Your task to perform on an android device: Open Google Chrome and open the bookmarks view Image 0: 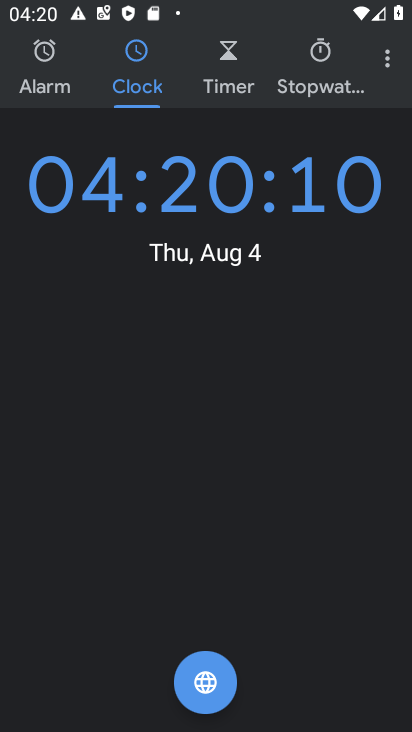
Step 0: press home button
Your task to perform on an android device: Open Google Chrome and open the bookmarks view Image 1: 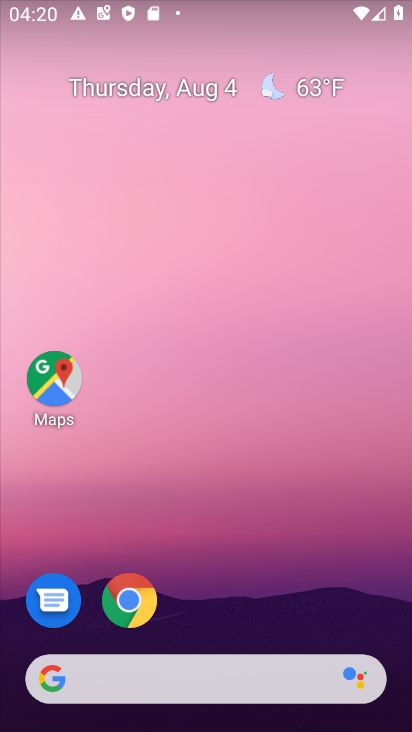
Step 1: drag from (333, 604) to (334, 199)
Your task to perform on an android device: Open Google Chrome and open the bookmarks view Image 2: 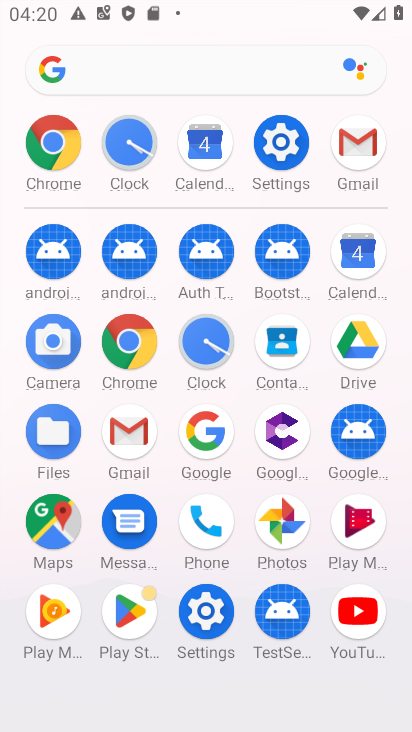
Step 2: click (140, 342)
Your task to perform on an android device: Open Google Chrome and open the bookmarks view Image 3: 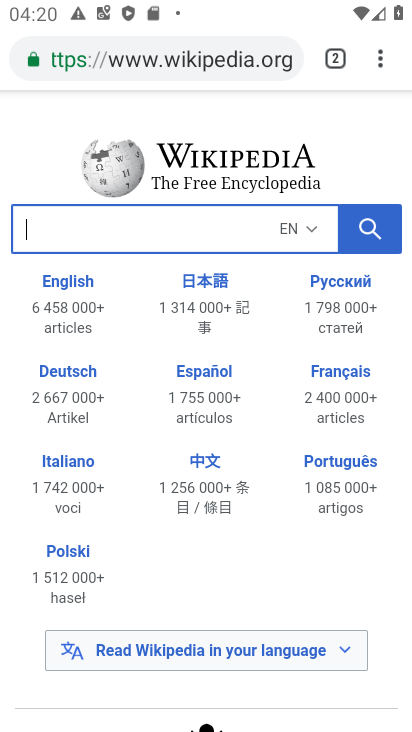
Step 3: drag from (385, 39) to (204, 237)
Your task to perform on an android device: Open Google Chrome and open the bookmarks view Image 4: 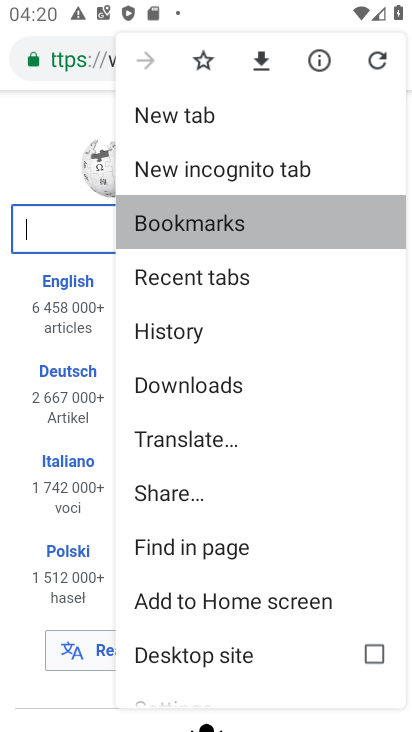
Step 4: click (204, 237)
Your task to perform on an android device: Open Google Chrome and open the bookmarks view Image 5: 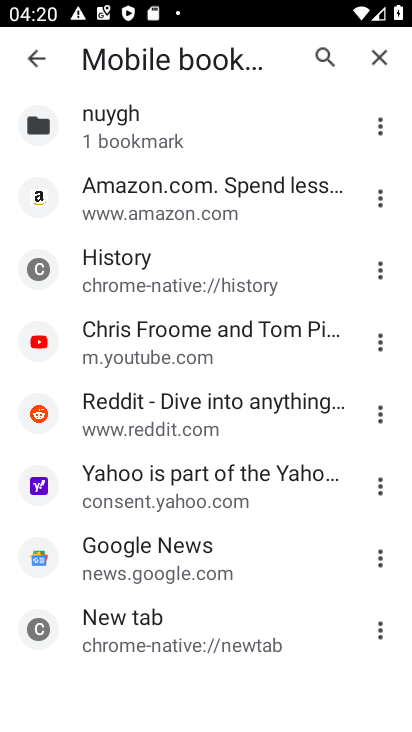
Step 5: task complete